Your task to perform on an android device: all mails in gmail Image 0: 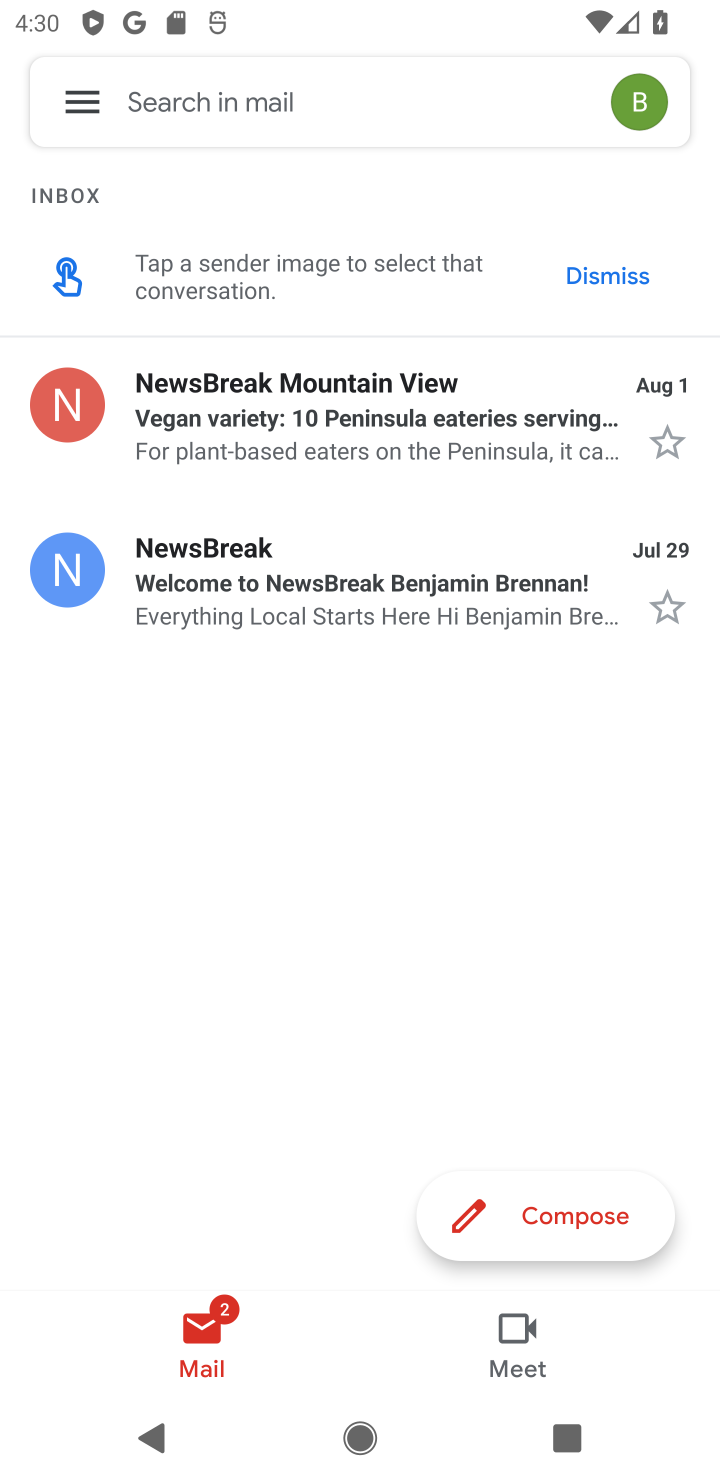
Step 0: click (72, 92)
Your task to perform on an android device: all mails in gmail Image 1: 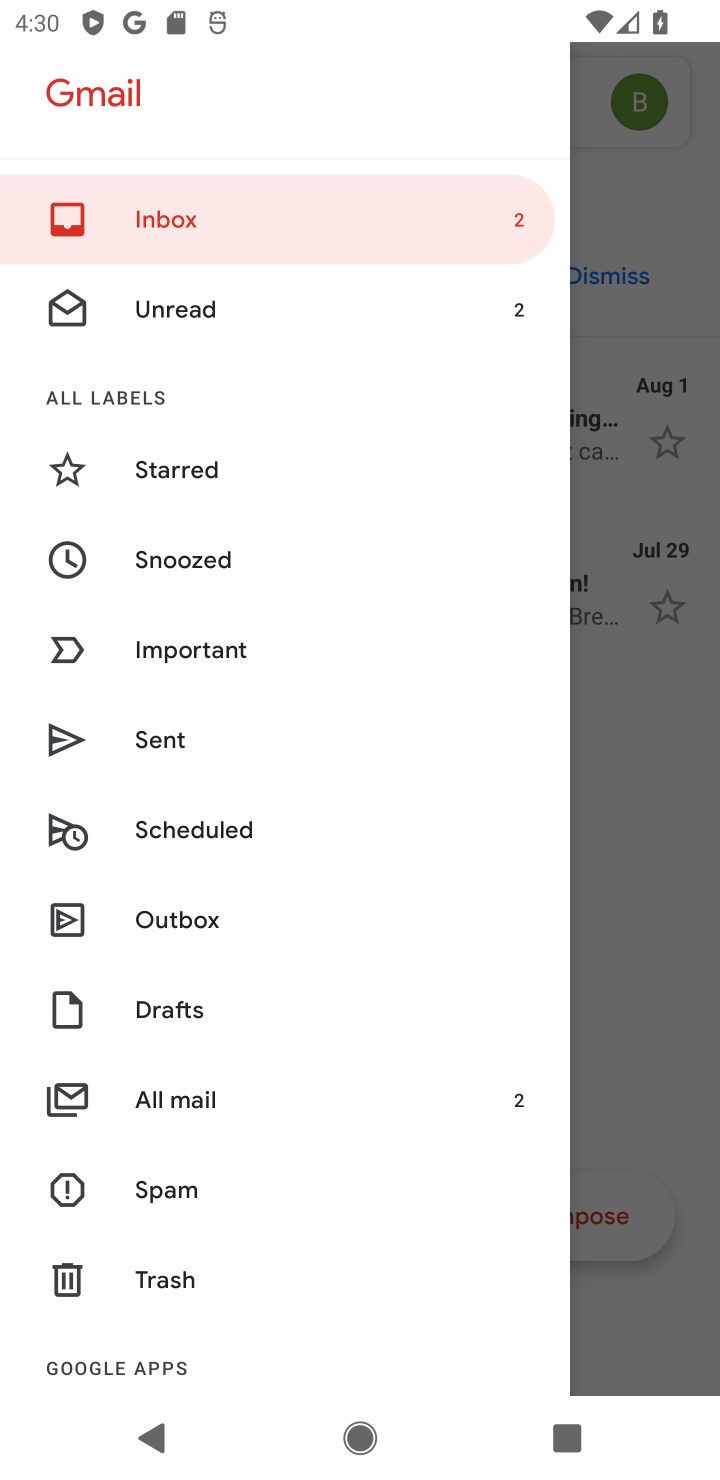
Step 1: click (179, 1090)
Your task to perform on an android device: all mails in gmail Image 2: 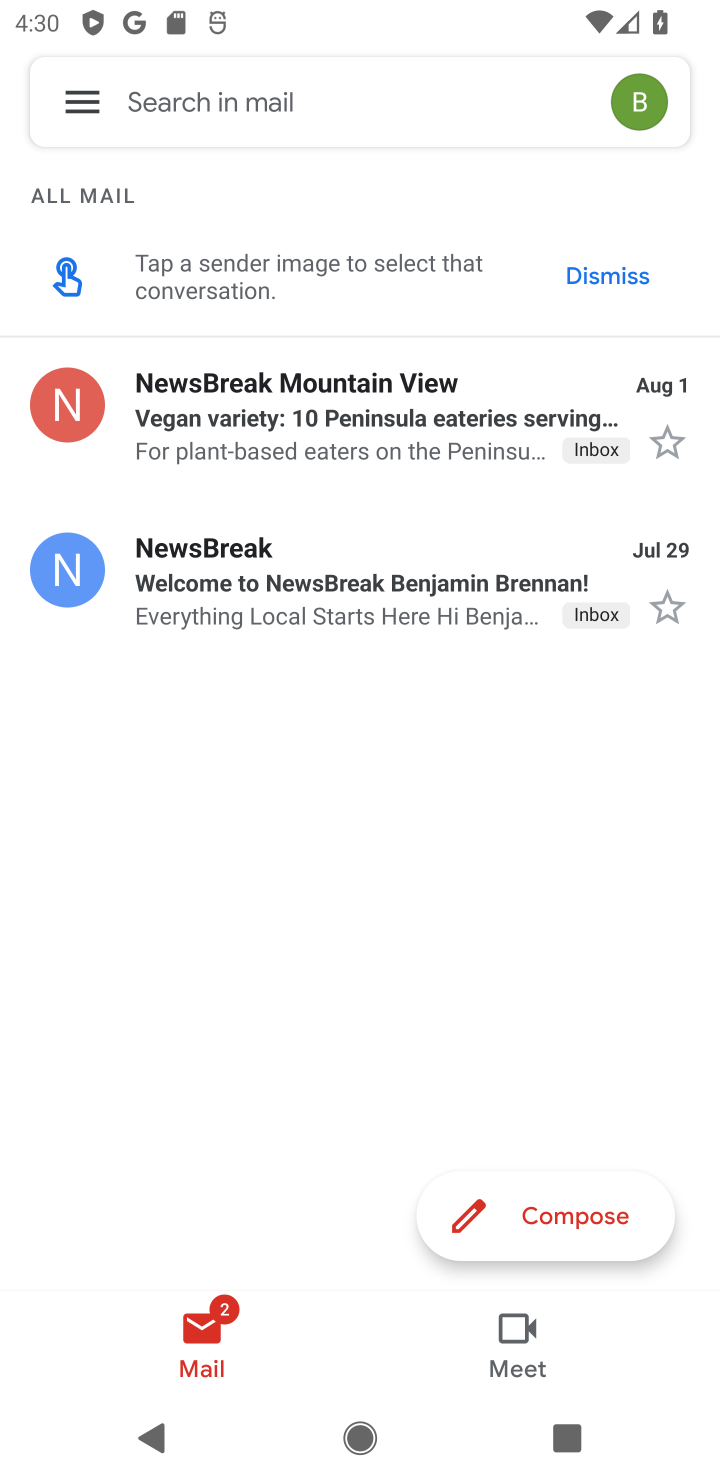
Step 2: task complete